Your task to perform on an android device: Go to internet settings Image 0: 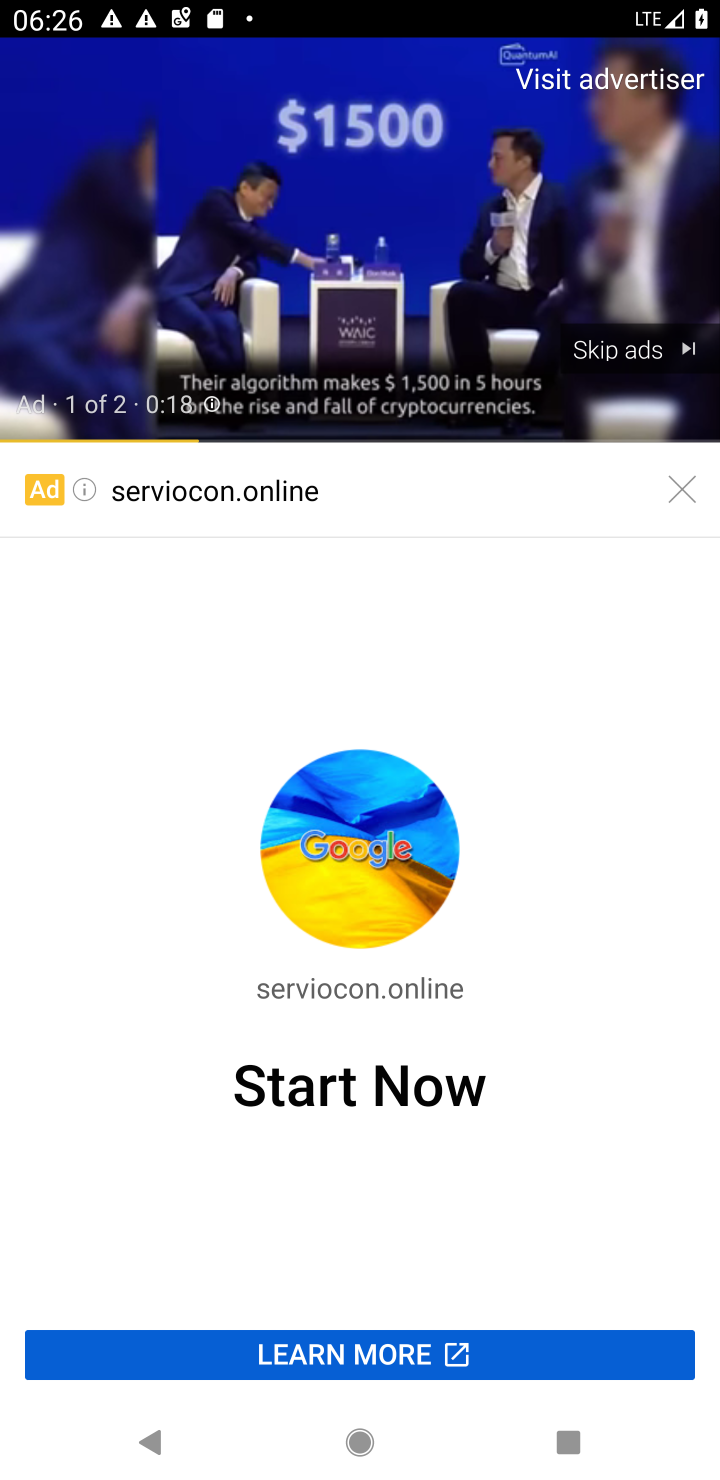
Step 0: press home button
Your task to perform on an android device: Go to internet settings Image 1: 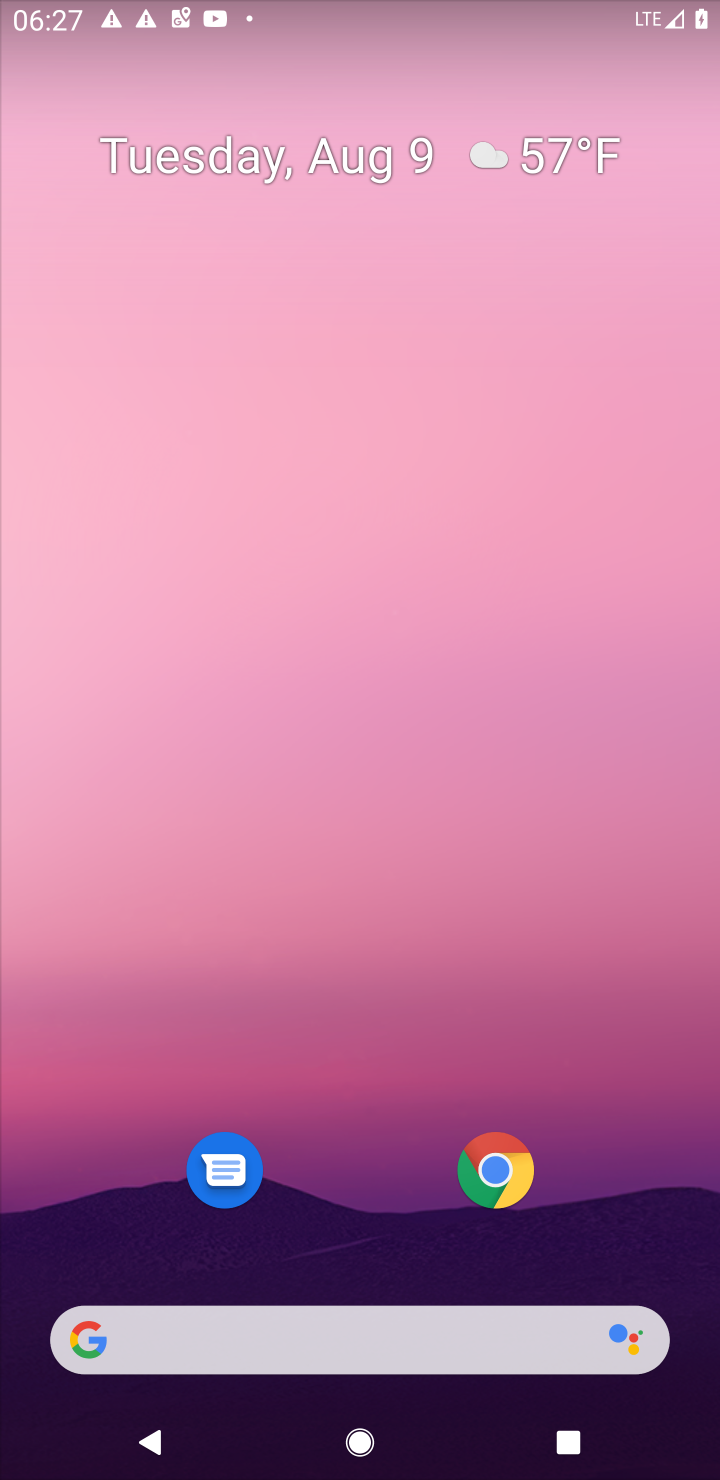
Step 1: drag from (216, 489) to (125, 29)
Your task to perform on an android device: Go to internet settings Image 2: 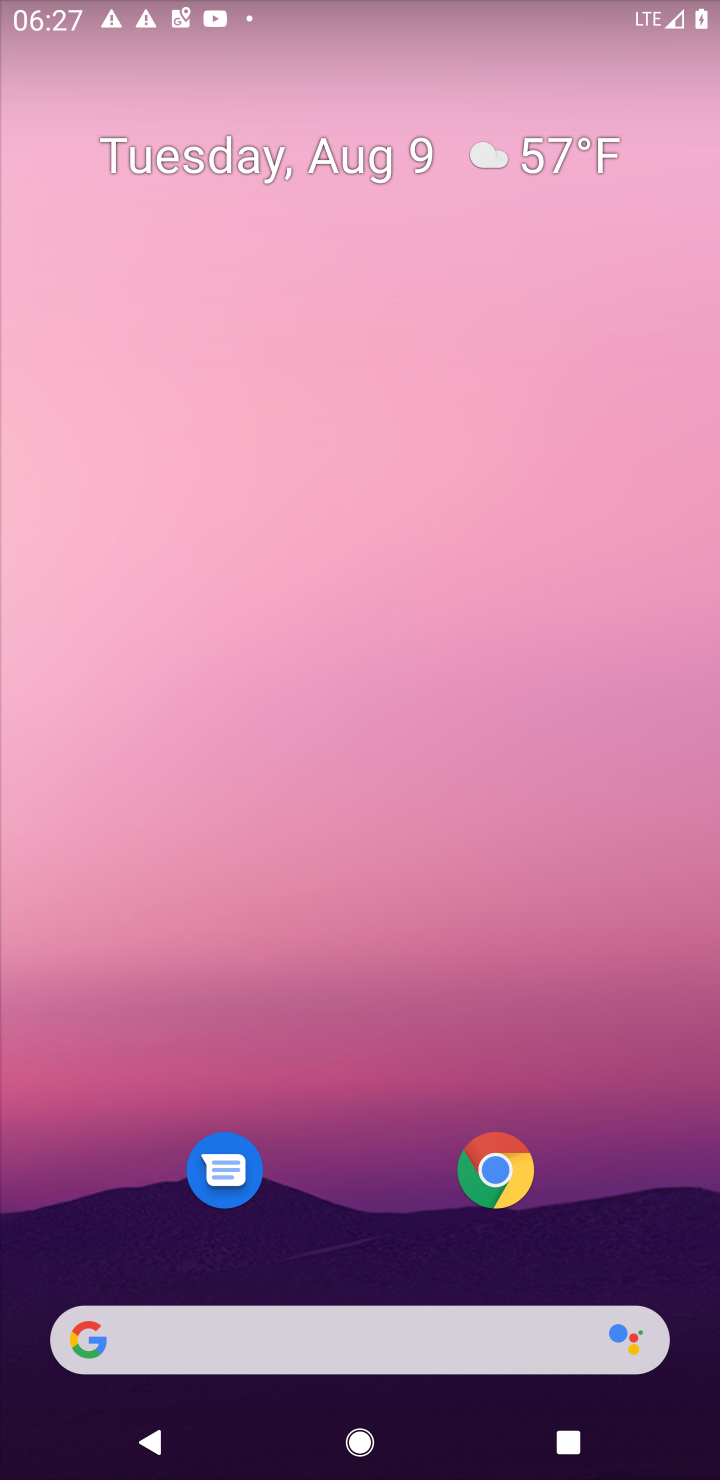
Step 2: drag from (381, 1257) to (530, 7)
Your task to perform on an android device: Go to internet settings Image 3: 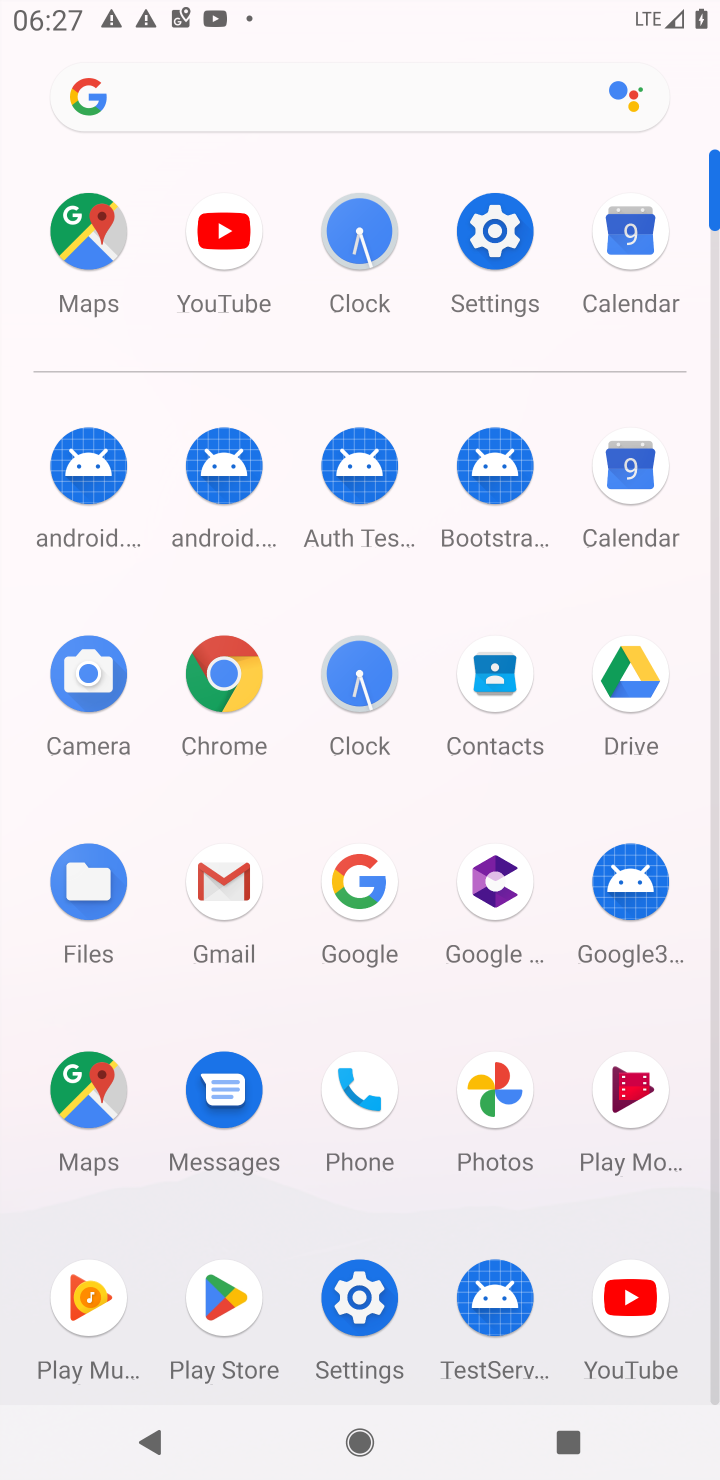
Step 3: click (471, 247)
Your task to perform on an android device: Go to internet settings Image 4: 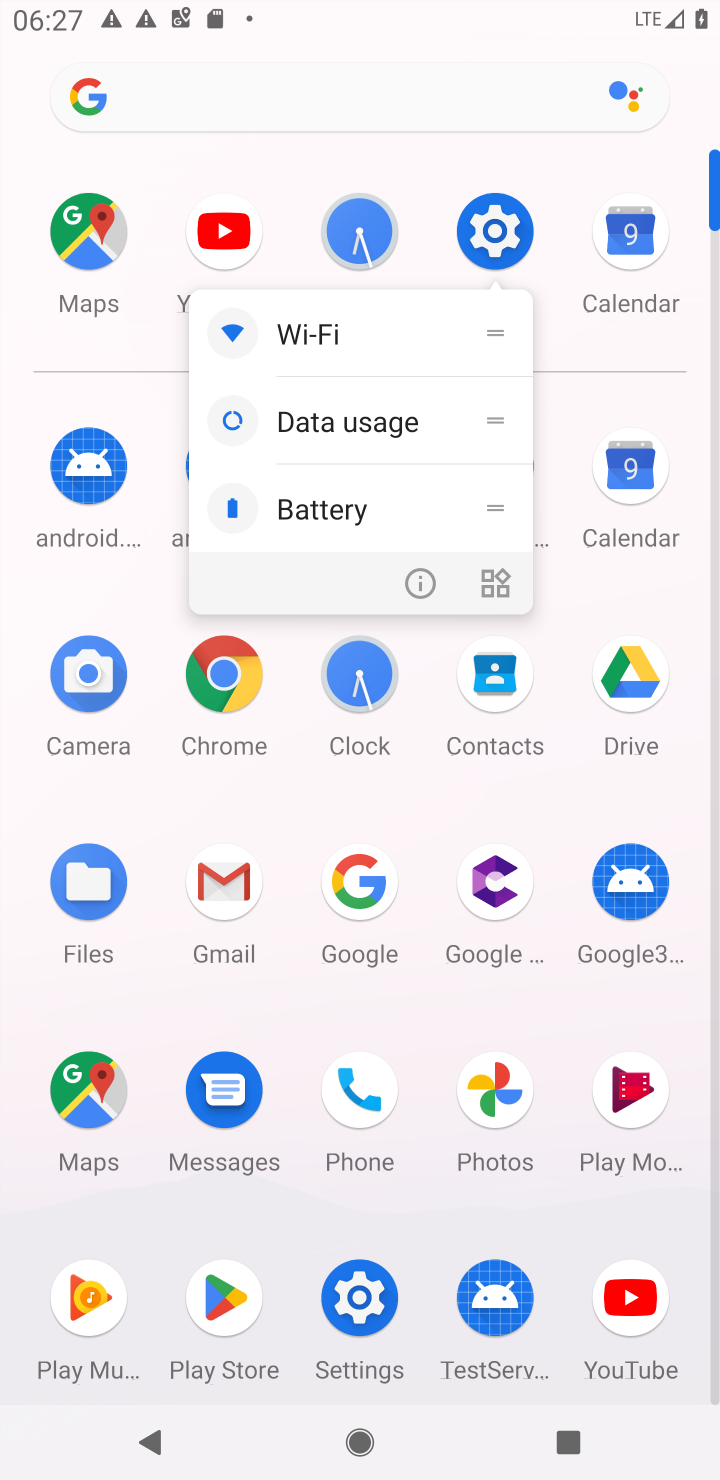
Step 4: click (487, 237)
Your task to perform on an android device: Go to internet settings Image 5: 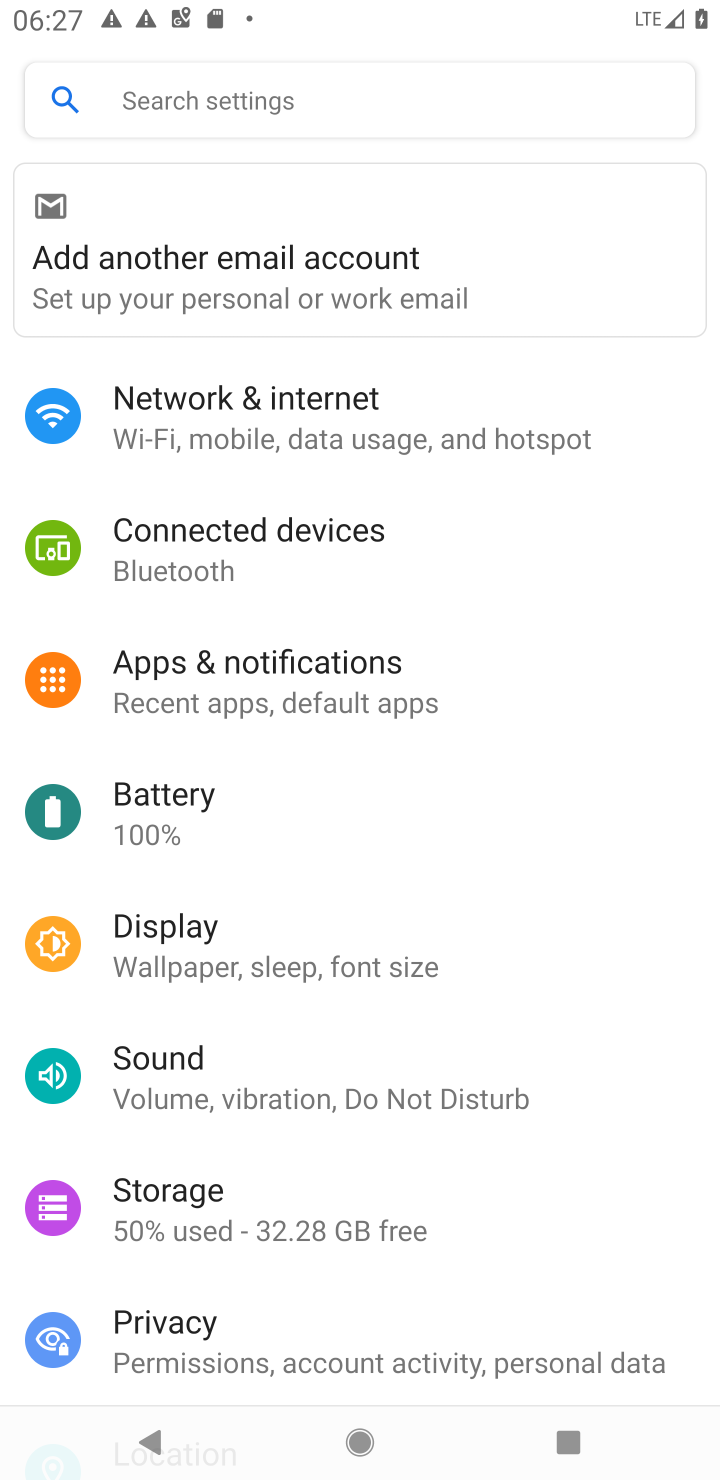
Step 5: click (229, 424)
Your task to perform on an android device: Go to internet settings Image 6: 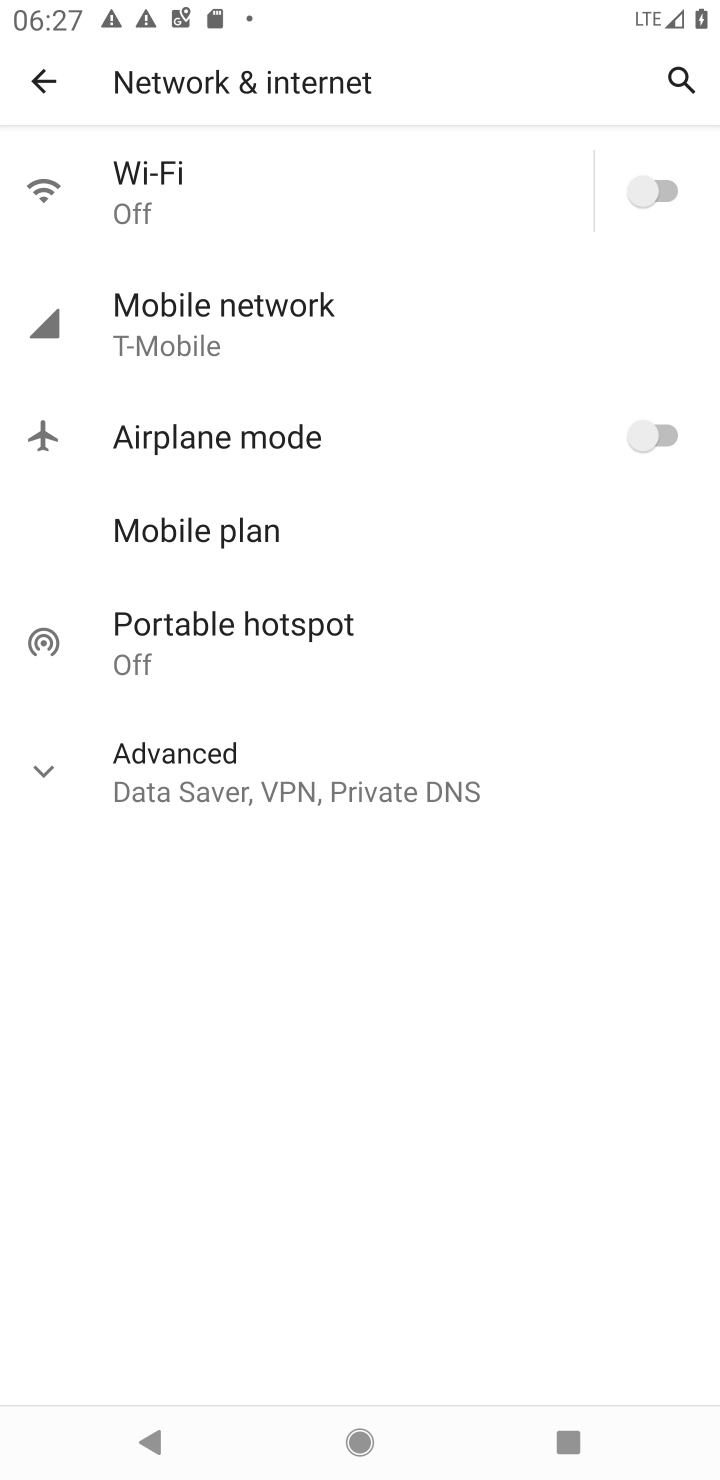
Step 6: task complete